Your task to perform on an android device: Open settings on Google Maps Image 0: 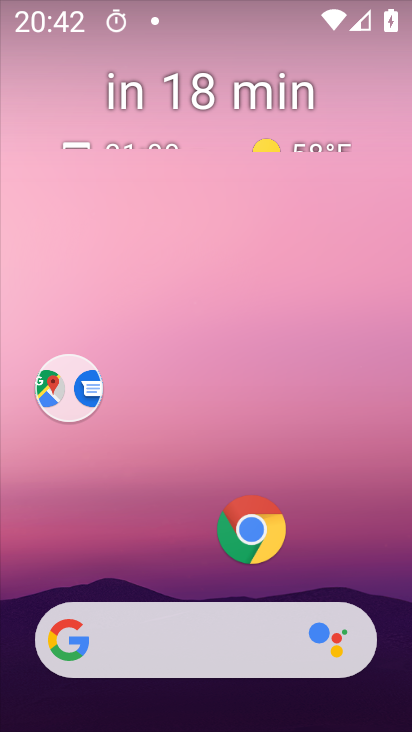
Step 0: drag from (205, 577) to (224, 96)
Your task to perform on an android device: Open settings on Google Maps Image 1: 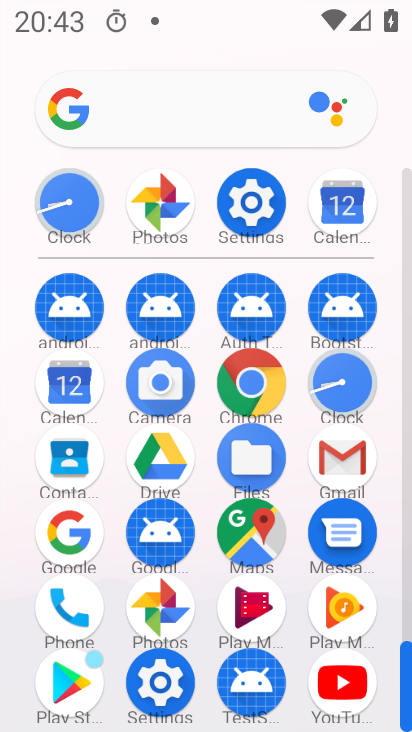
Step 1: drag from (124, 616) to (147, 316)
Your task to perform on an android device: Open settings on Google Maps Image 2: 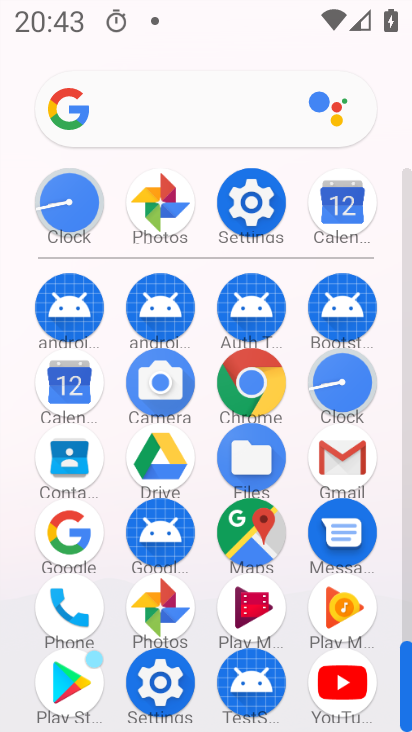
Step 2: click (248, 520)
Your task to perform on an android device: Open settings on Google Maps Image 3: 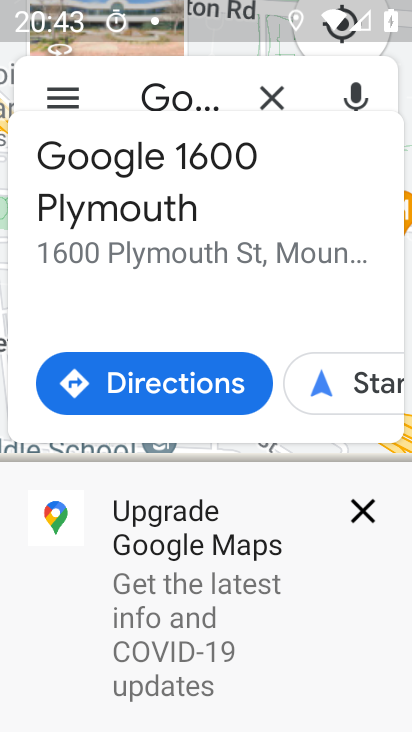
Step 3: click (367, 507)
Your task to perform on an android device: Open settings on Google Maps Image 4: 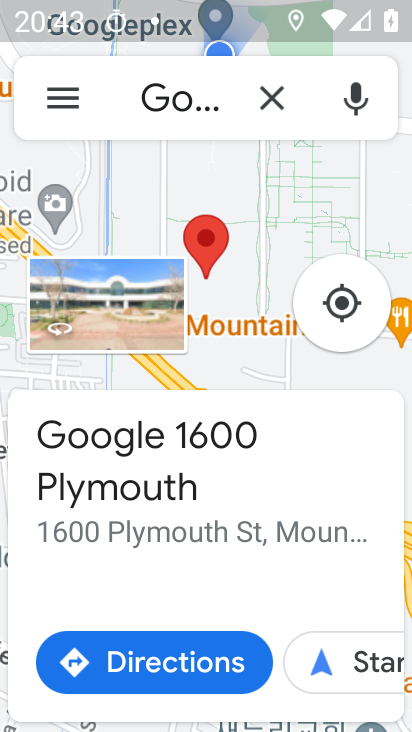
Step 4: click (60, 103)
Your task to perform on an android device: Open settings on Google Maps Image 5: 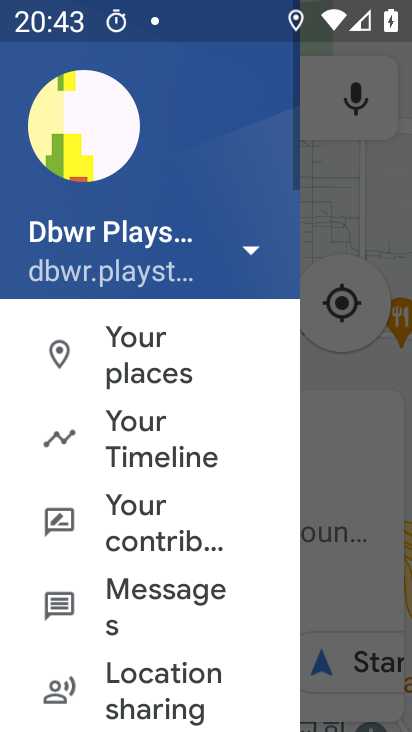
Step 5: drag from (222, 587) to (198, 62)
Your task to perform on an android device: Open settings on Google Maps Image 6: 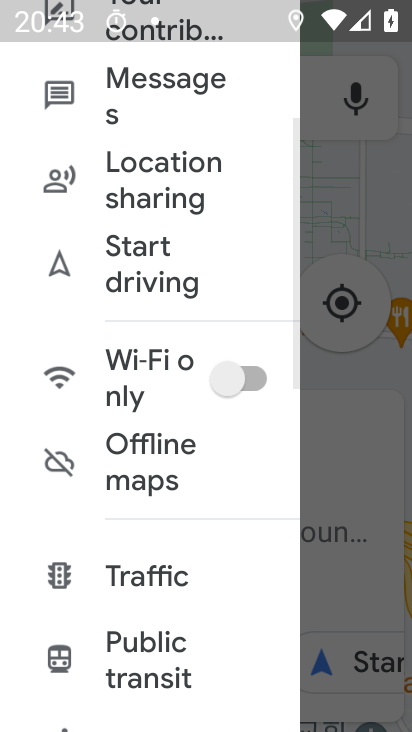
Step 6: drag from (188, 597) to (172, 82)
Your task to perform on an android device: Open settings on Google Maps Image 7: 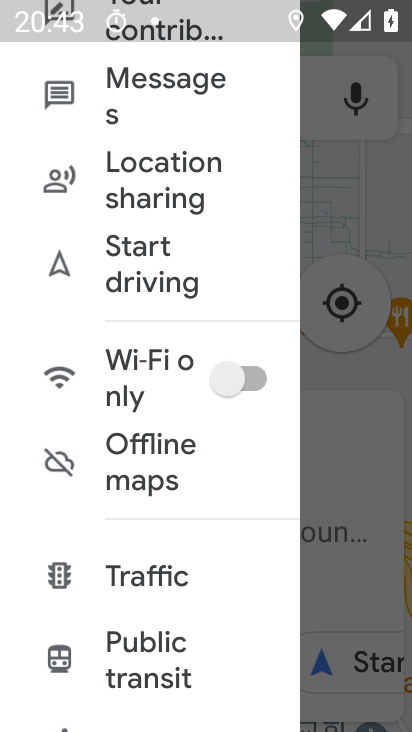
Step 7: drag from (154, 584) to (139, 141)
Your task to perform on an android device: Open settings on Google Maps Image 8: 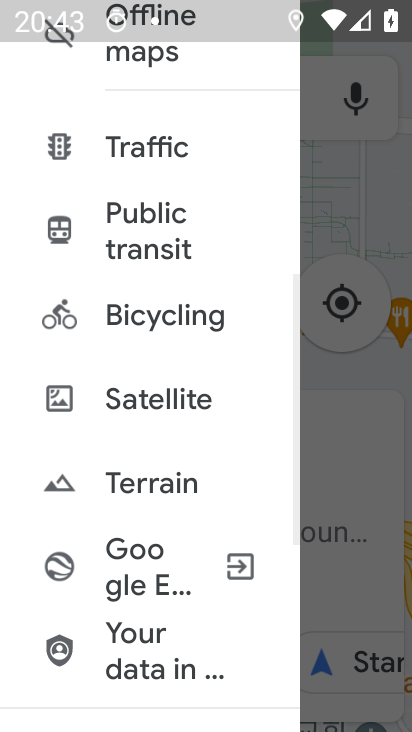
Step 8: drag from (148, 627) to (154, 257)
Your task to perform on an android device: Open settings on Google Maps Image 9: 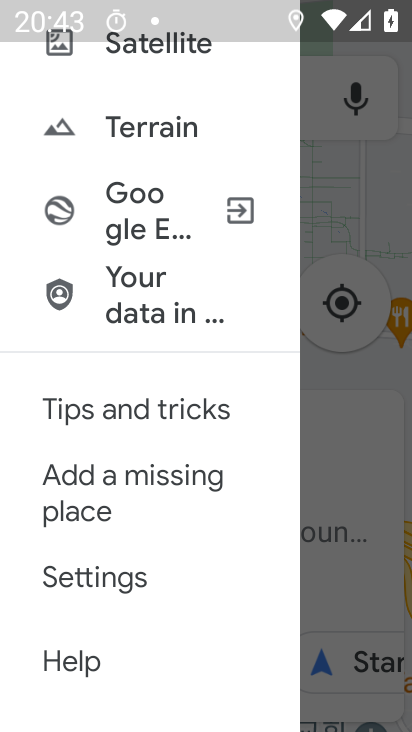
Step 9: click (113, 585)
Your task to perform on an android device: Open settings on Google Maps Image 10: 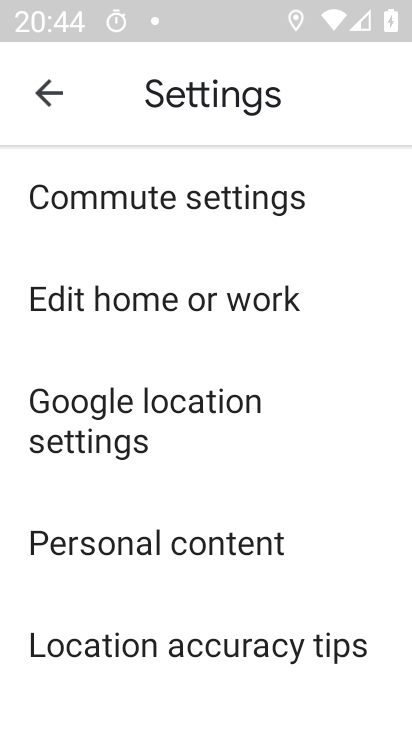
Step 10: task complete